Your task to perform on an android device: Is it going to rain tomorrow? Image 0: 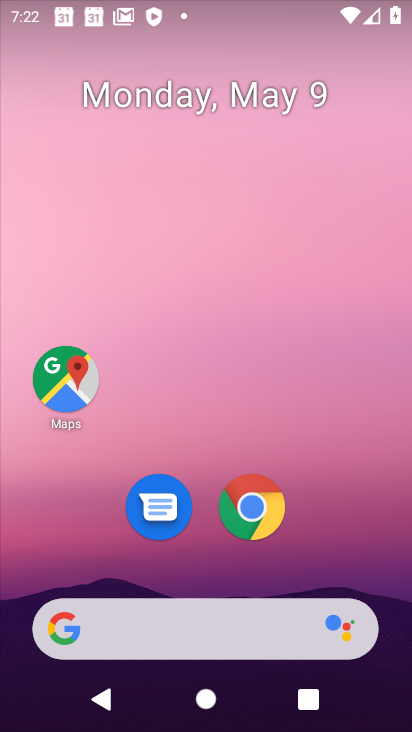
Step 0: drag from (289, 671) to (198, 131)
Your task to perform on an android device: Is it going to rain tomorrow? Image 1: 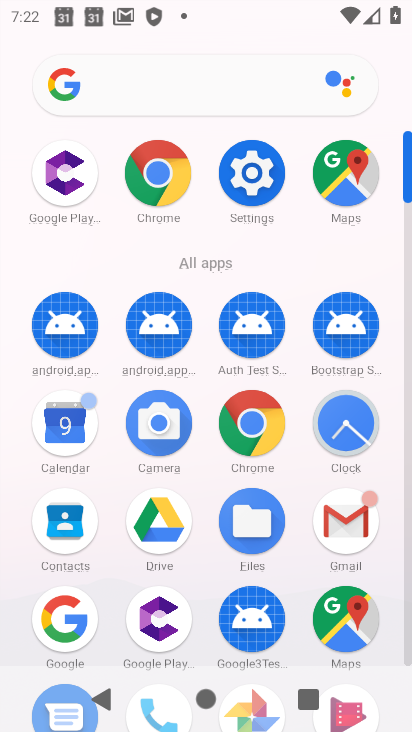
Step 1: click (153, 98)
Your task to perform on an android device: Is it going to rain tomorrow? Image 2: 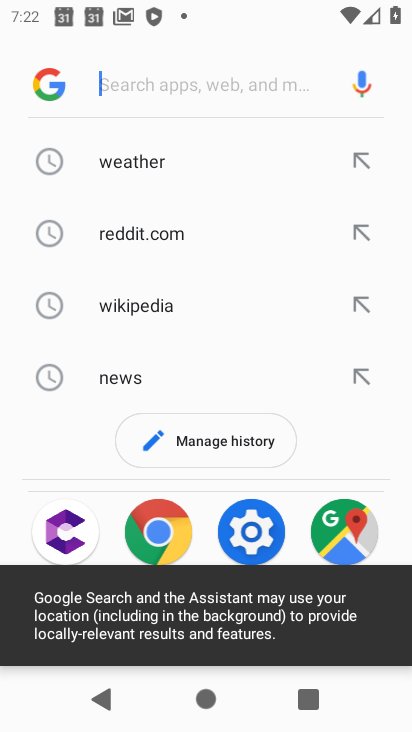
Step 2: click (143, 169)
Your task to perform on an android device: Is it going to rain tomorrow? Image 3: 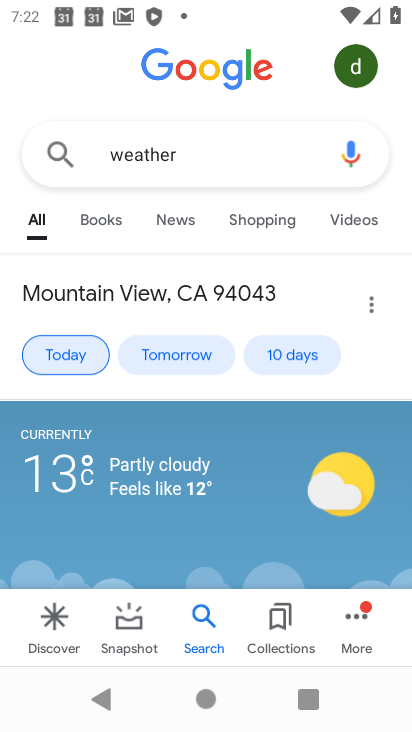
Step 3: click (165, 350)
Your task to perform on an android device: Is it going to rain tomorrow? Image 4: 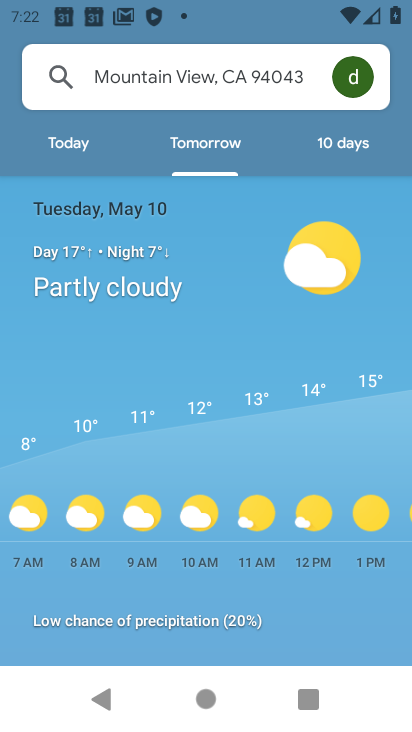
Step 4: task complete